Your task to perform on an android device: Go to Google maps Image 0: 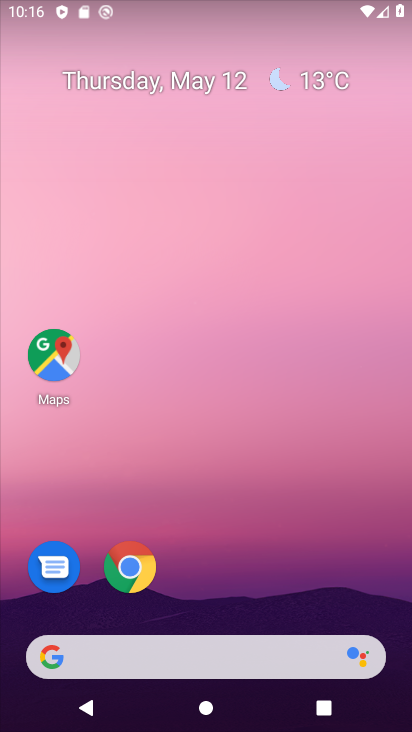
Step 0: click (50, 367)
Your task to perform on an android device: Go to Google maps Image 1: 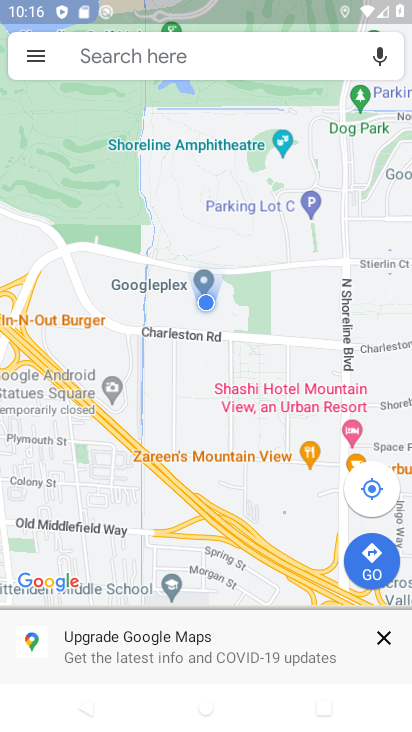
Step 1: task complete